Your task to perform on an android device: open chrome privacy settings Image 0: 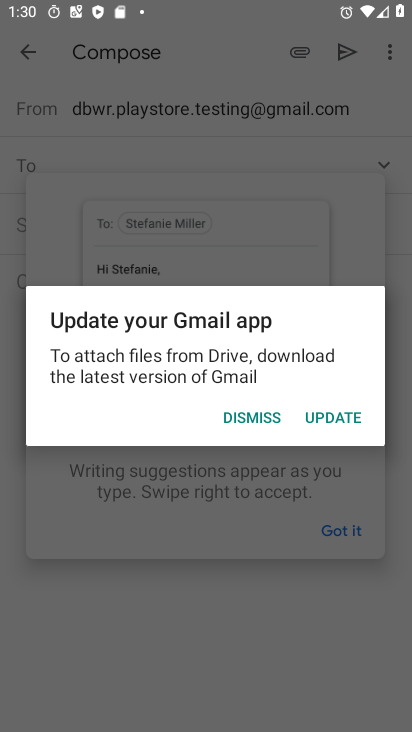
Step 0: press home button
Your task to perform on an android device: open chrome privacy settings Image 1: 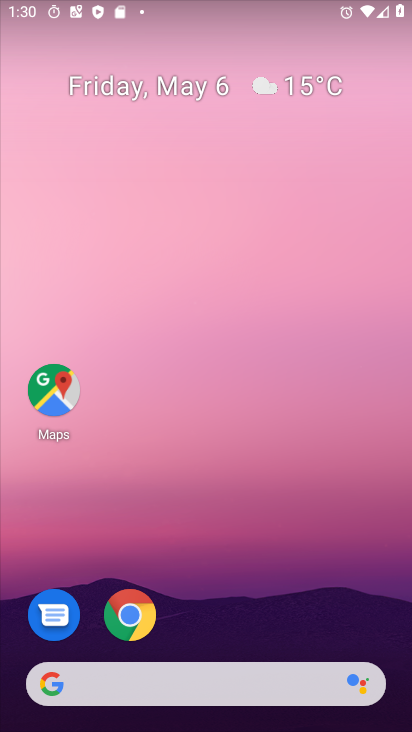
Step 1: drag from (287, 588) to (264, 122)
Your task to perform on an android device: open chrome privacy settings Image 2: 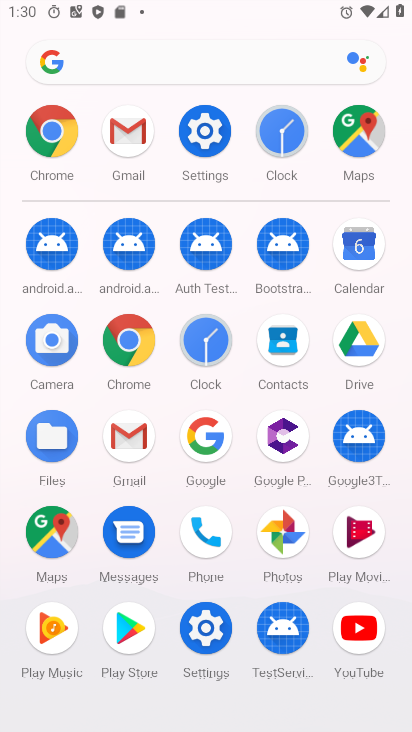
Step 2: click (113, 348)
Your task to perform on an android device: open chrome privacy settings Image 3: 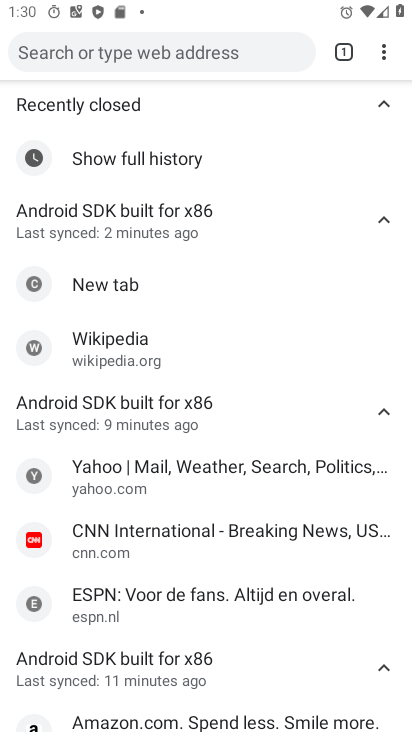
Step 3: drag from (385, 49) to (289, 436)
Your task to perform on an android device: open chrome privacy settings Image 4: 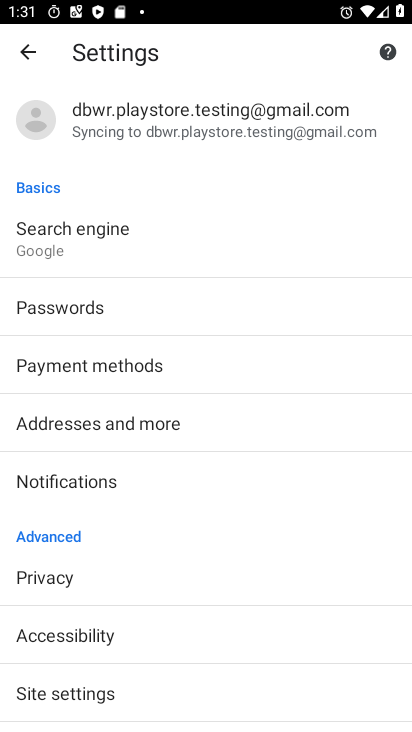
Step 4: click (47, 579)
Your task to perform on an android device: open chrome privacy settings Image 5: 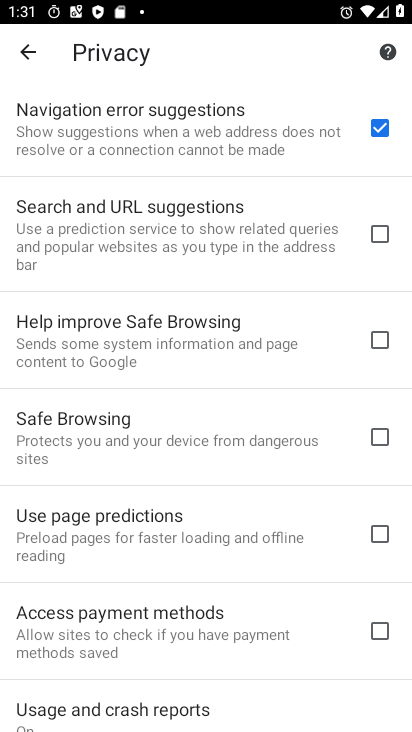
Step 5: task complete